Your task to perform on an android device: check android version Image 0: 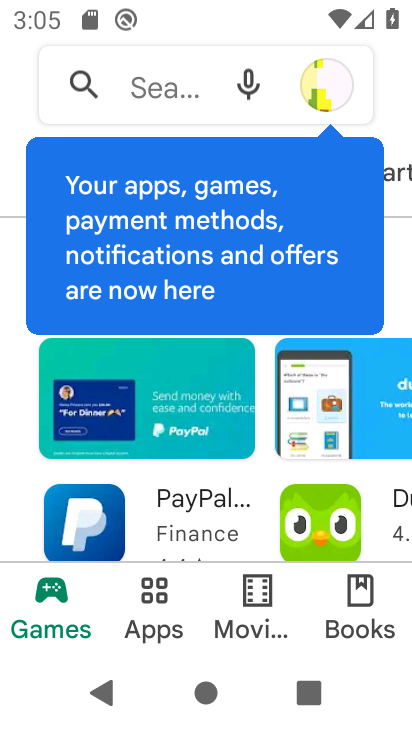
Step 0: press home button
Your task to perform on an android device: check android version Image 1: 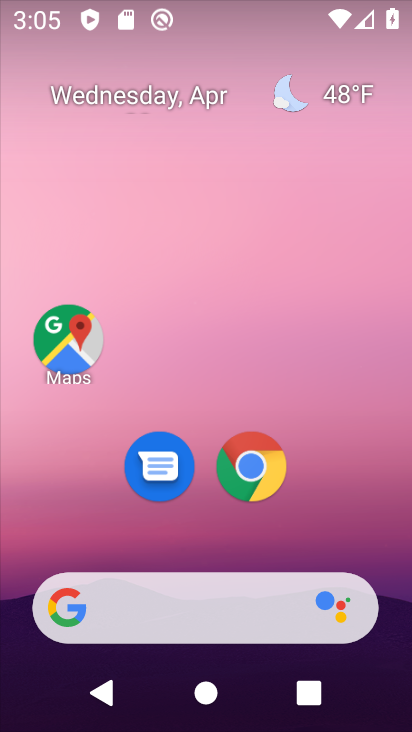
Step 1: drag from (347, 519) to (338, 74)
Your task to perform on an android device: check android version Image 2: 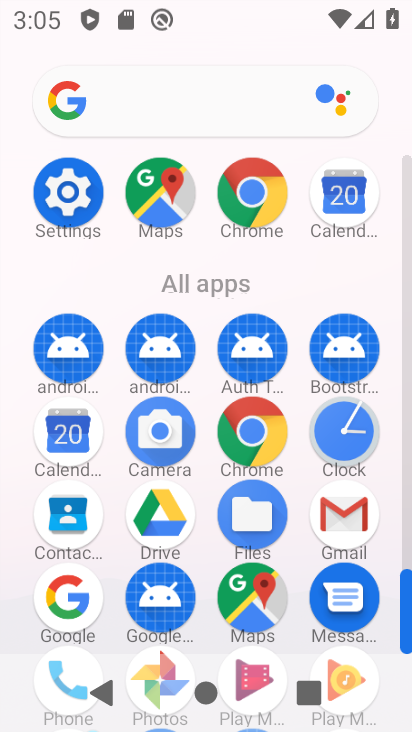
Step 2: click (84, 193)
Your task to perform on an android device: check android version Image 3: 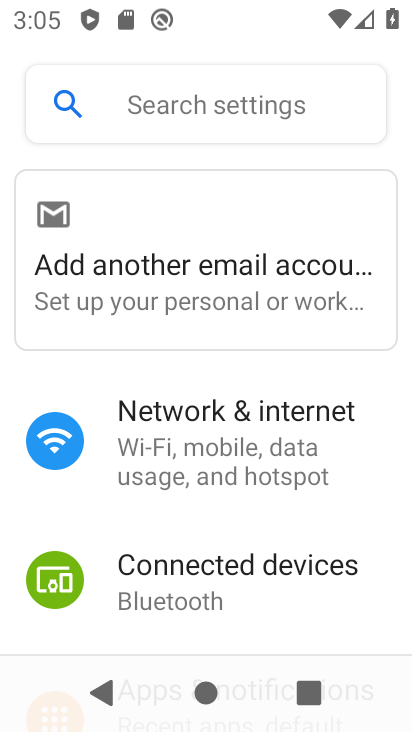
Step 3: drag from (176, 505) to (207, 240)
Your task to perform on an android device: check android version Image 4: 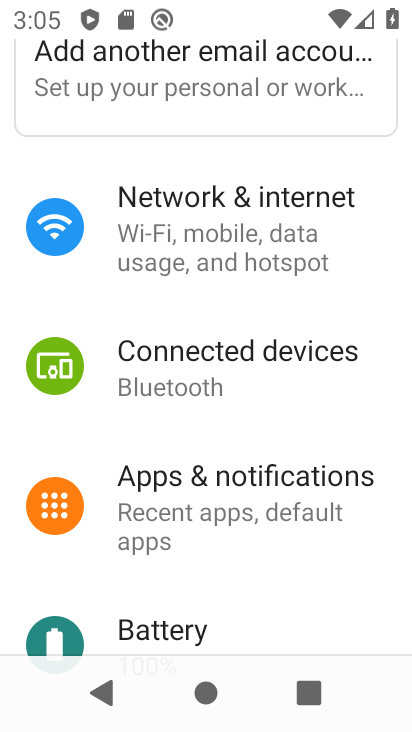
Step 4: drag from (213, 563) to (212, 234)
Your task to perform on an android device: check android version Image 5: 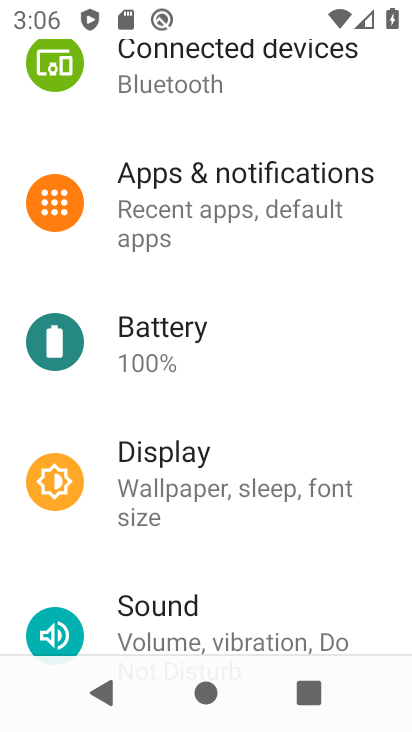
Step 5: drag from (234, 549) to (229, 210)
Your task to perform on an android device: check android version Image 6: 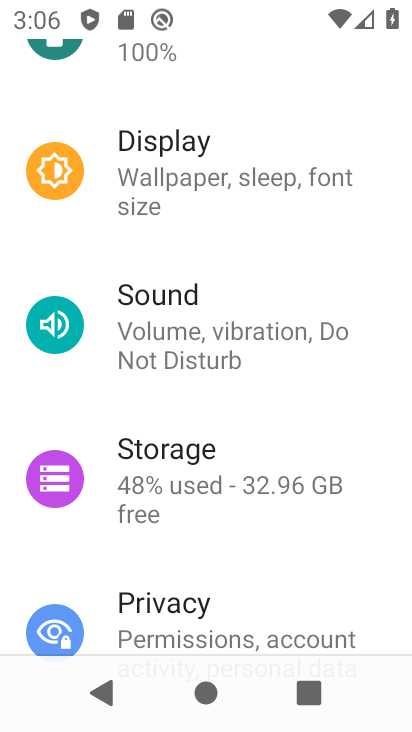
Step 6: drag from (240, 555) to (237, 199)
Your task to perform on an android device: check android version Image 7: 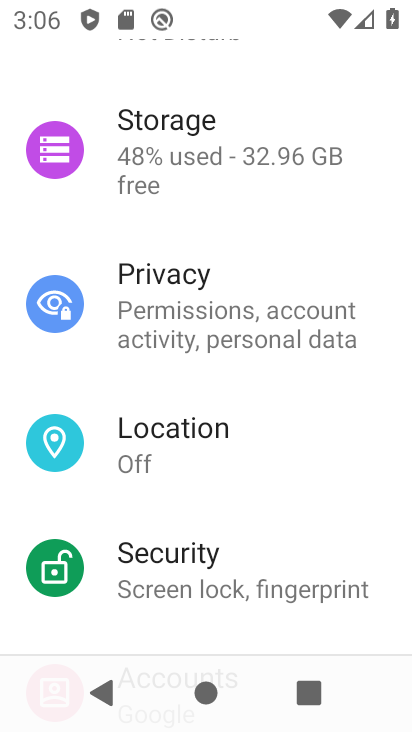
Step 7: drag from (243, 507) to (255, 175)
Your task to perform on an android device: check android version Image 8: 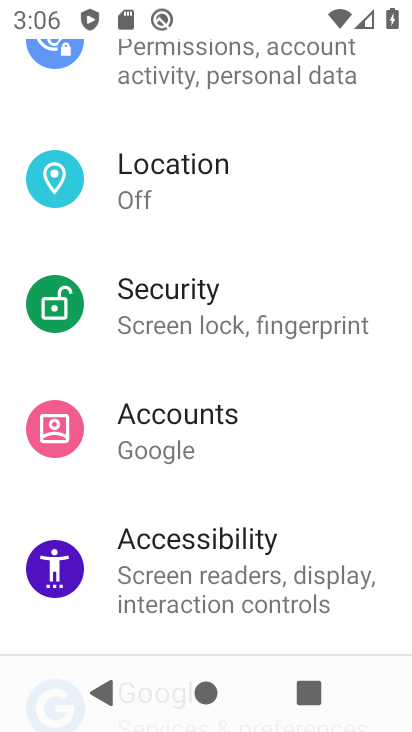
Step 8: drag from (254, 487) to (258, 128)
Your task to perform on an android device: check android version Image 9: 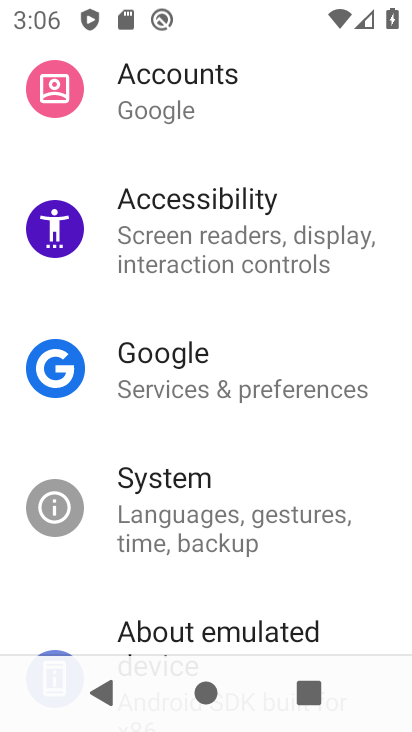
Step 9: drag from (247, 461) to (234, 220)
Your task to perform on an android device: check android version Image 10: 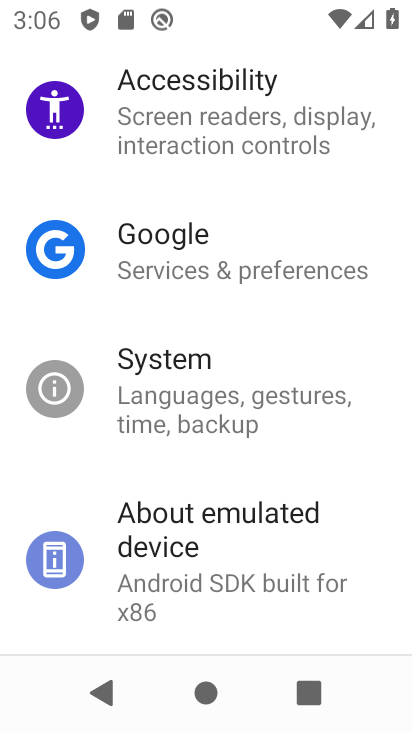
Step 10: click (236, 522)
Your task to perform on an android device: check android version Image 11: 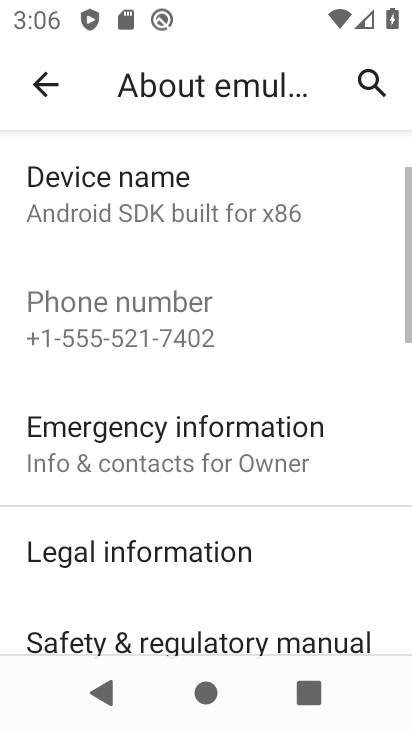
Step 11: drag from (239, 598) to (227, 198)
Your task to perform on an android device: check android version Image 12: 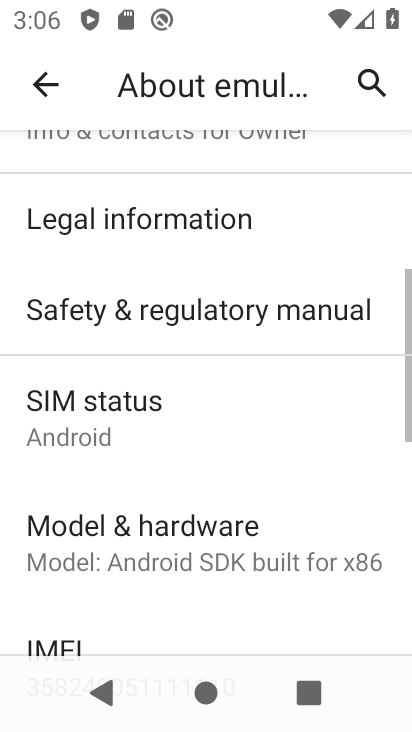
Step 12: drag from (240, 493) to (223, 175)
Your task to perform on an android device: check android version Image 13: 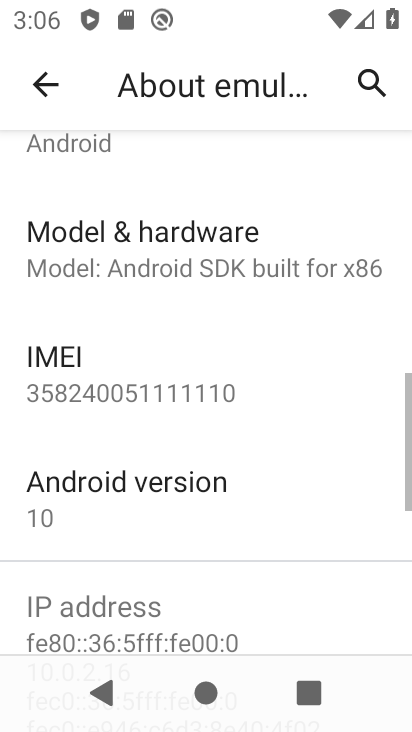
Step 13: click (210, 498)
Your task to perform on an android device: check android version Image 14: 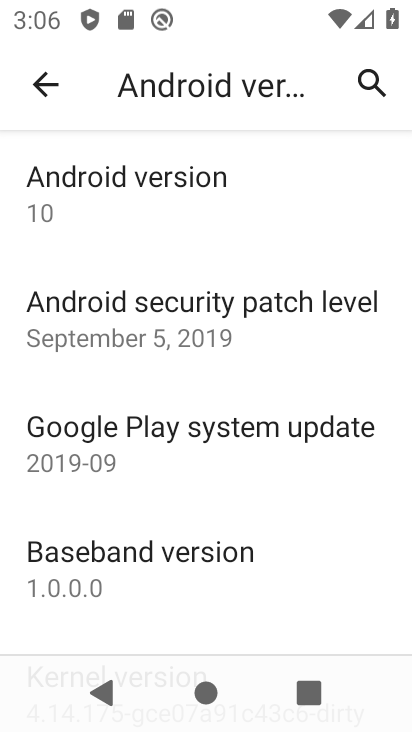
Step 14: task complete